Your task to perform on an android device: toggle pop-ups in chrome Image 0: 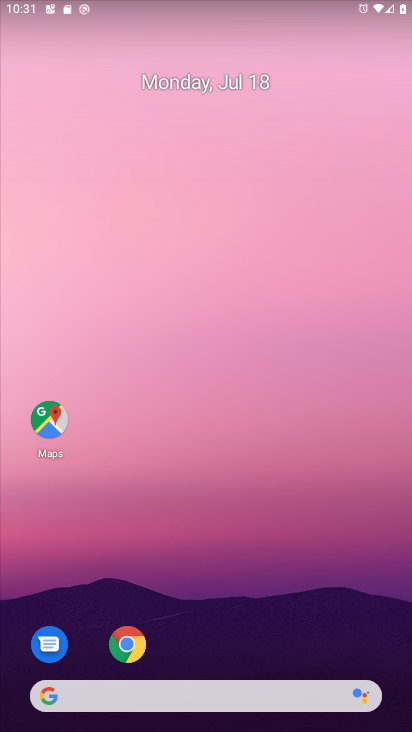
Step 0: click (144, 639)
Your task to perform on an android device: toggle pop-ups in chrome Image 1: 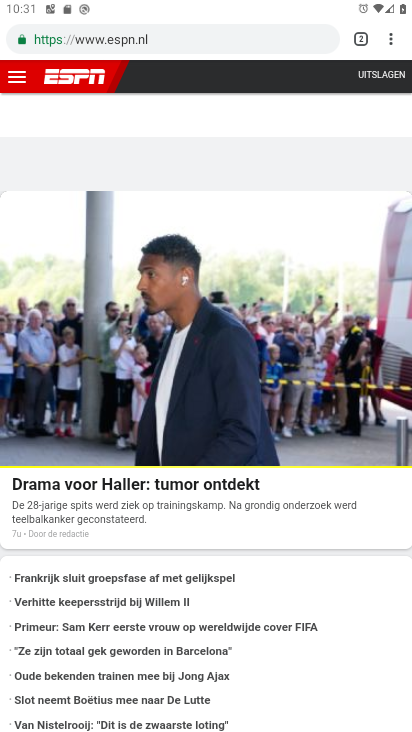
Step 1: click (387, 53)
Your task to perform on an android device: toggle pop-ups in chrome Image 2: 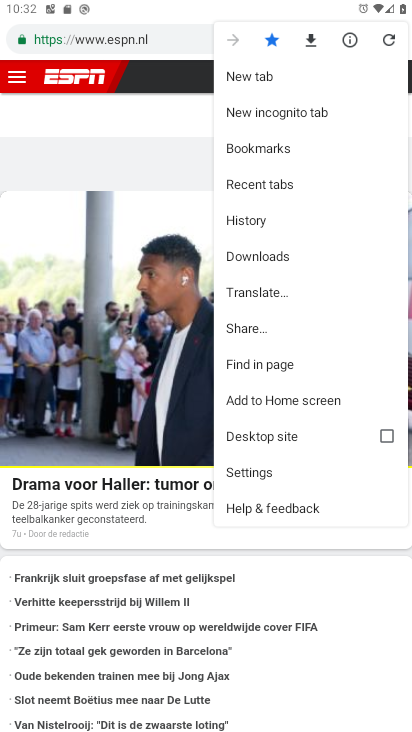
Step 2: task complete